Your task to perform on an android device: change the clock display to analog Image 0: 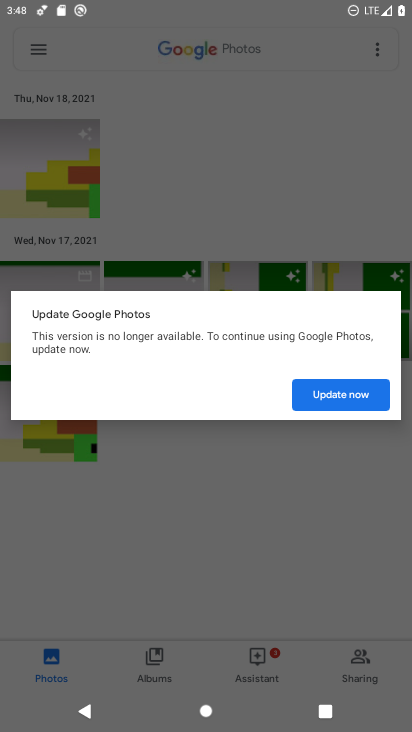
Step 0: press home button
Your task to perform on an android device: change the clock display to analog Image 1: 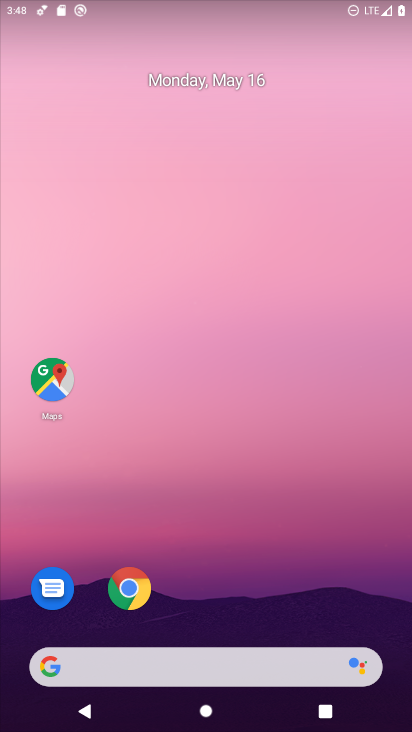
Step 1: drag from (265, 632) to (244, 5)
Your task to perform on an android device: change the clock display to analog Image 2: 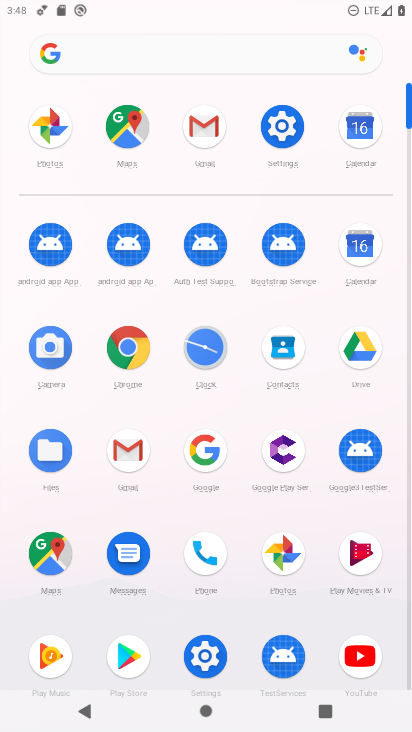
Step 2: click (193, 350)
Your task to perform on an android device: change the clock display to analog Image 3: 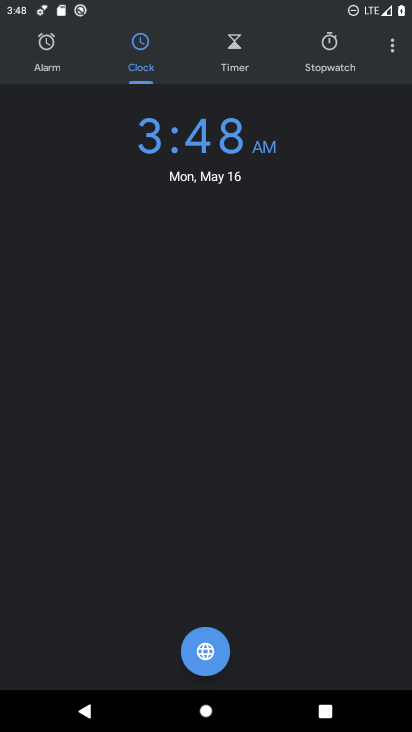
Step 3: click (387, 46)
Your task to perform on an android device: change the clock display to analog Image 4: 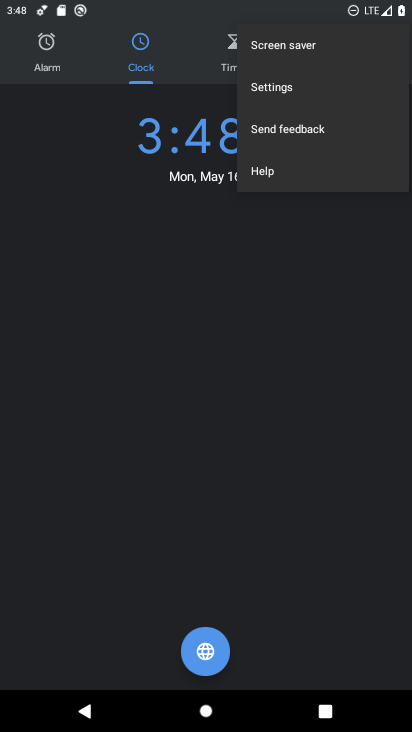
Step 4: click (275, 92)
Your task to perform on an android device: change the clock display to analog Image 5: 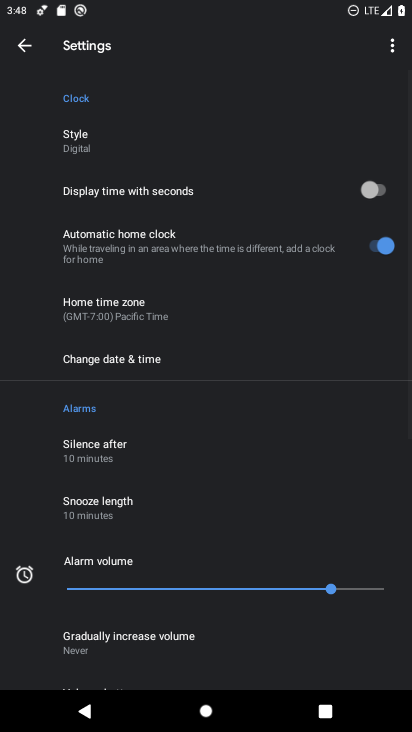
Step 5: click (78, 150)
Your task to perform on an android device: change the clock display to analog Image 6: 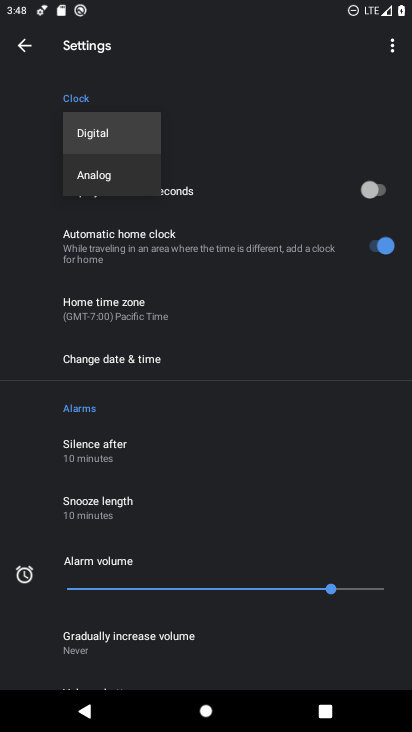
Step 6: click (79, 183)
Your task to perform on an android device: change the clock display to analog Image 7: 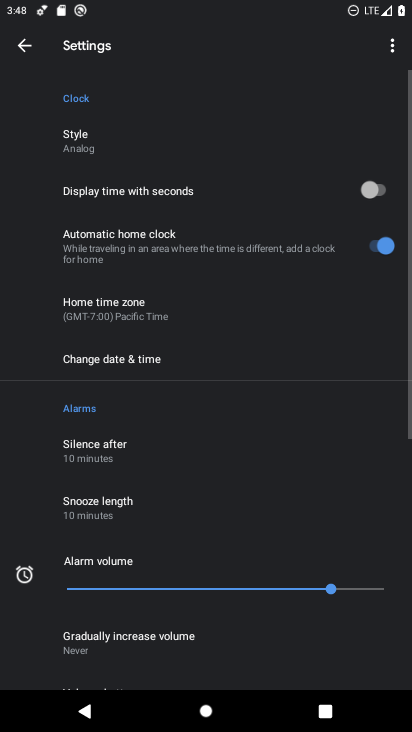
Step 7: task complete